Your task to perform on an android device: choose inbox layout in the gmail app Image 0: 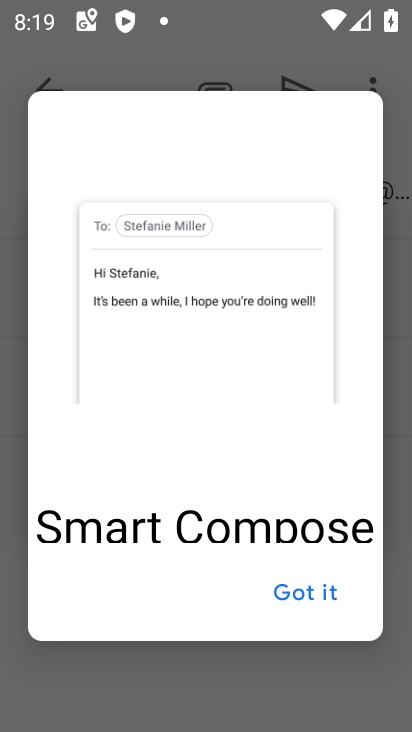
Step 0: press home button
Your task to perform on an android device: choose inbox layout in the gmail app Image 1: 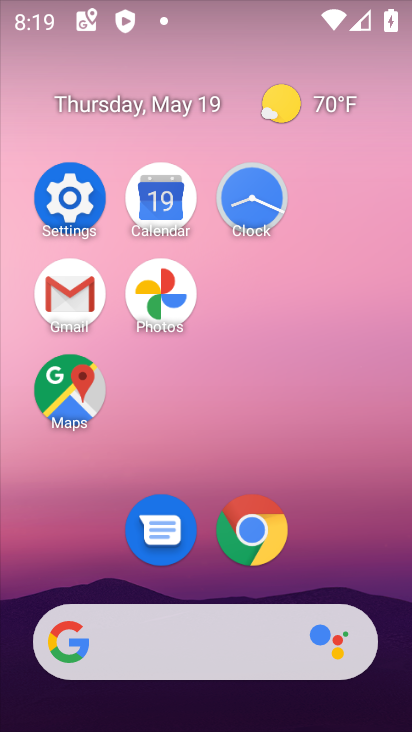
Step 1: click (74, 274)
Your task to perform on an android device: choose inbox layout in the gmail app Image 2: 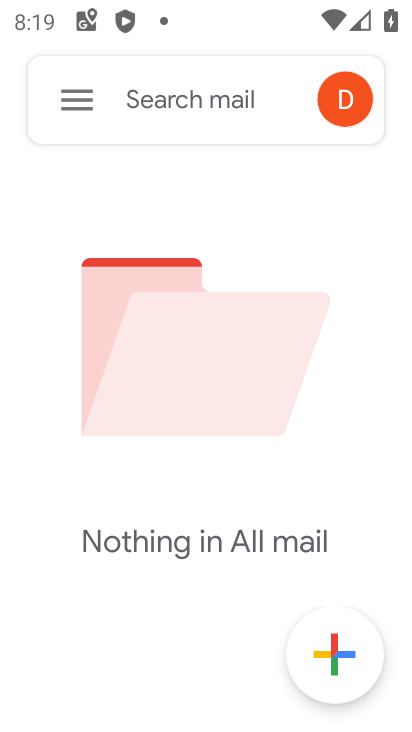
Step 2: click (67, 100)
Your task to perform on an android device: choose inbox layout in the gmail app Image 3: 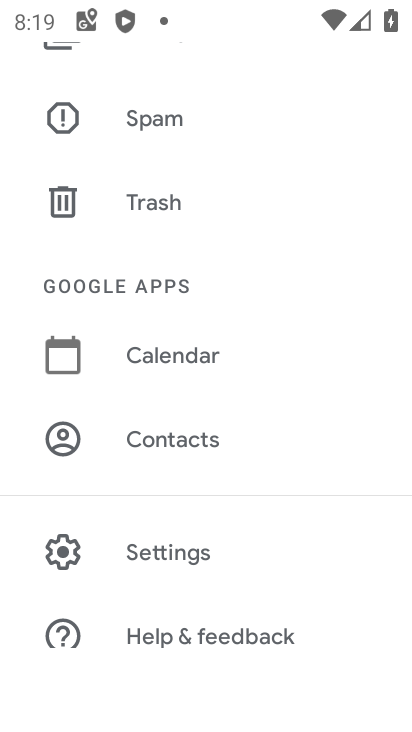
Step 3: click (206, 538)
Your task to perform on an android device: choose inbox layout in the gmail app Image 4: 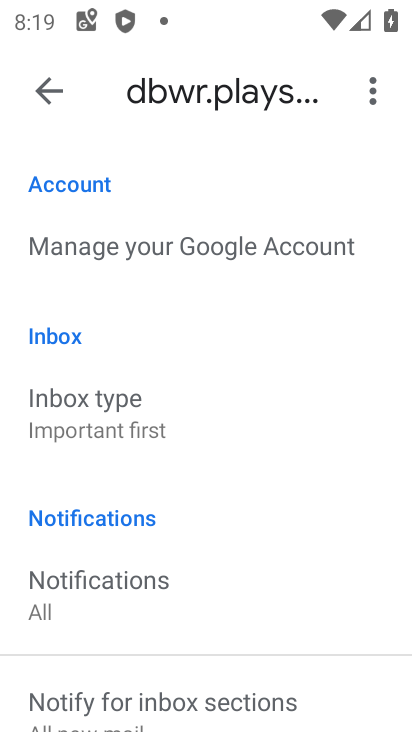
Step 4: click (159, 430)
Your task to perform on an android device: choose inbox layout in the gmail app Image 5: 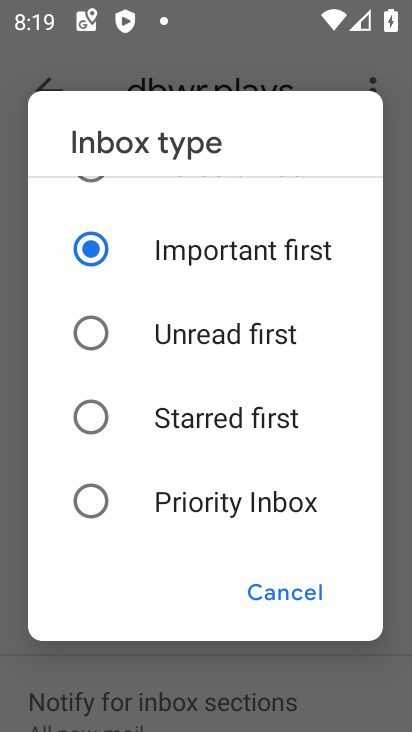
Step 5: drag from (340, 281) to (279, 579)
Your task to perform on an android device: choose inbox layout in the gmail app Image 6: 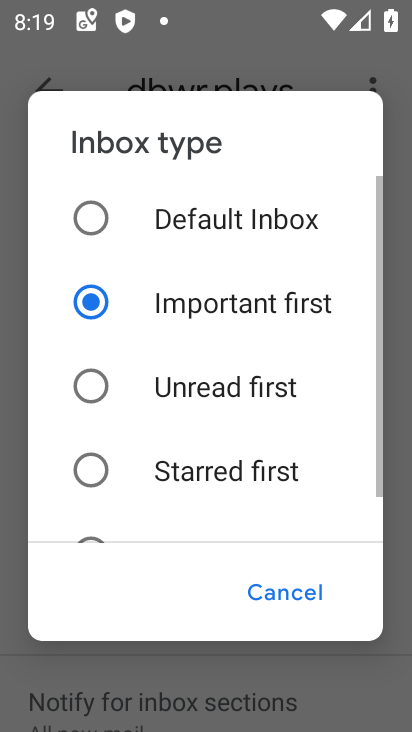
Step 6: click (239, 228)
Your task to perform on an android device: choose inbox layout in the gmail app Image 7: 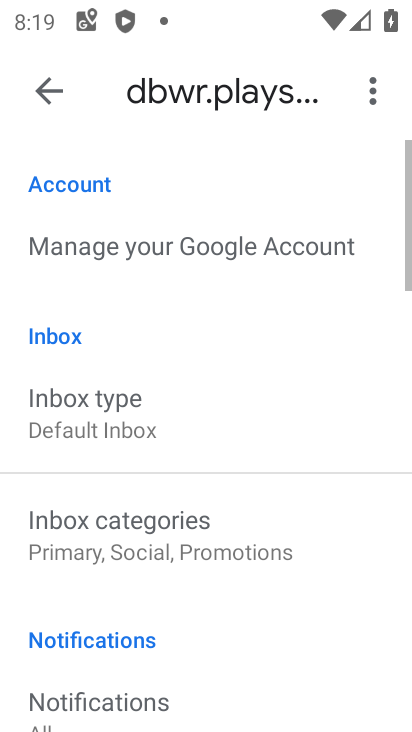
Step 7: task complete